Your task to perform on an android device: What's on my calendar tomorrow? Image 0: 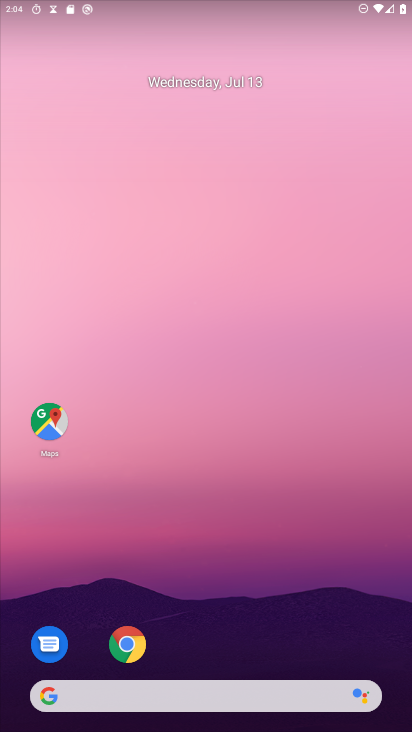
Step 0: press home button
Your task to perform on an android device: What's on my calendar tomorrow? Image 1: 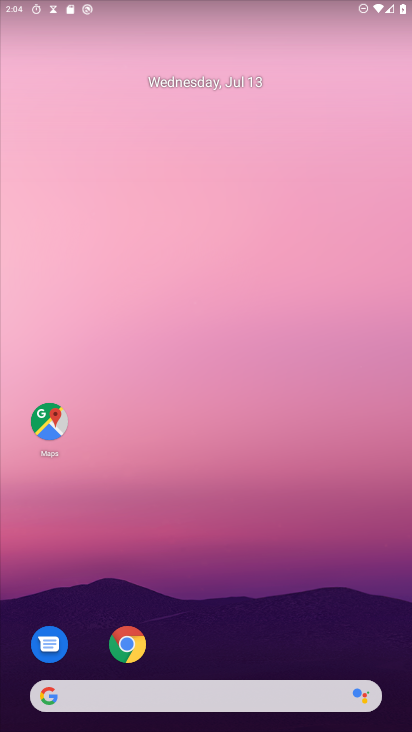
Step 1: drag from (284, 611) to (215, 42)
Your task to perform on an android device: What's on my calendar tomorrow? Image 2: 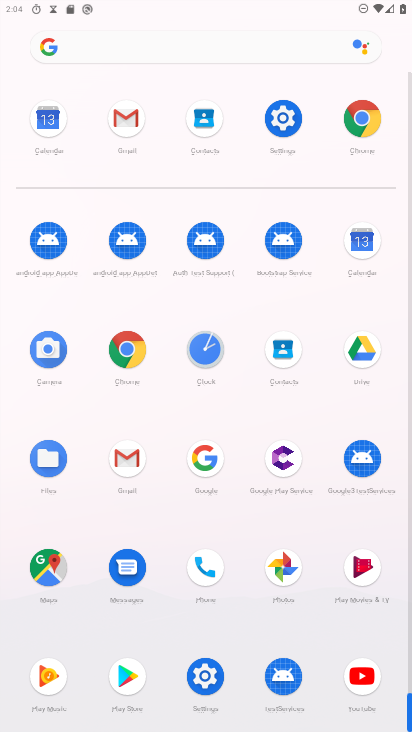
Step 2: click (367, 248)
Your task to perform on an android device: What's on my calendar tomorrow? Image 3: 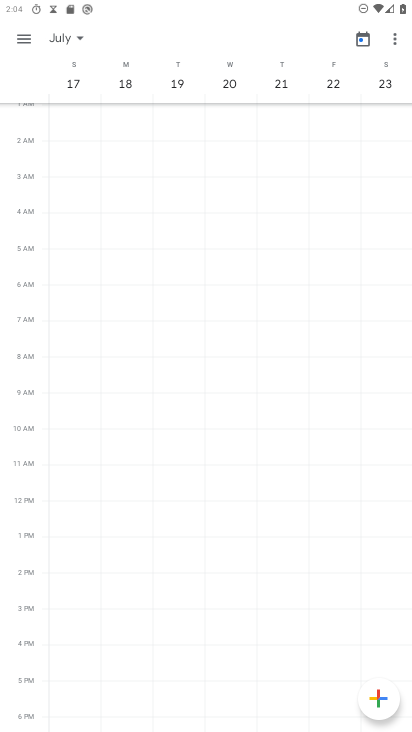
Step 3: drag from (98, 71) to (325, 81)
Your task to perform on an android device: What's on my calendar tomorrow? Image 4: 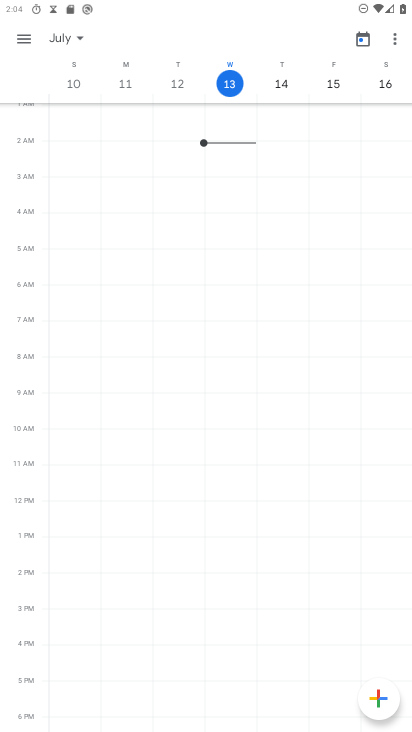
Step 4: click (279, 85)
Your task to perform on an android device: What's on my calendar tomorrow? Image 5: 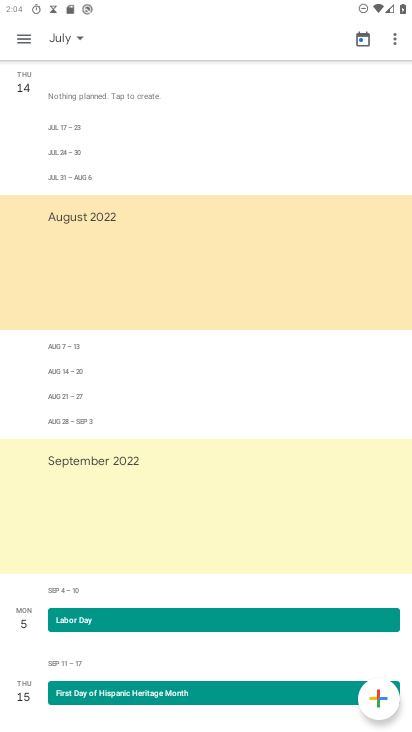
Step 5: task complete